Your task to perform on an android device: Open Google Chrome and open the bookmarks view Image 0: 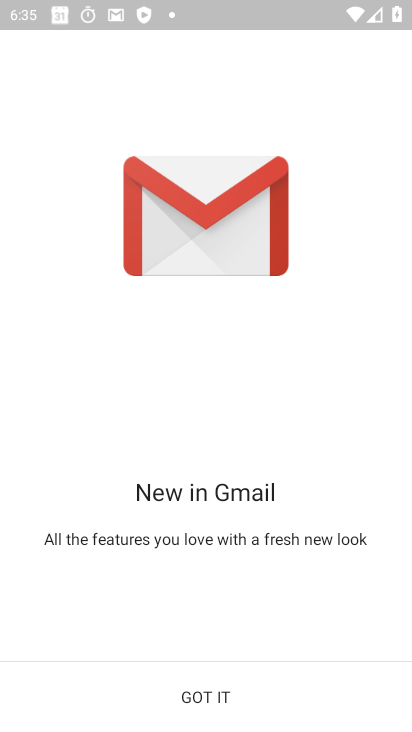
Step 0: press home button
Your task to perform on an android device: Open Google Chrome and open the bookmarks view Image 1: 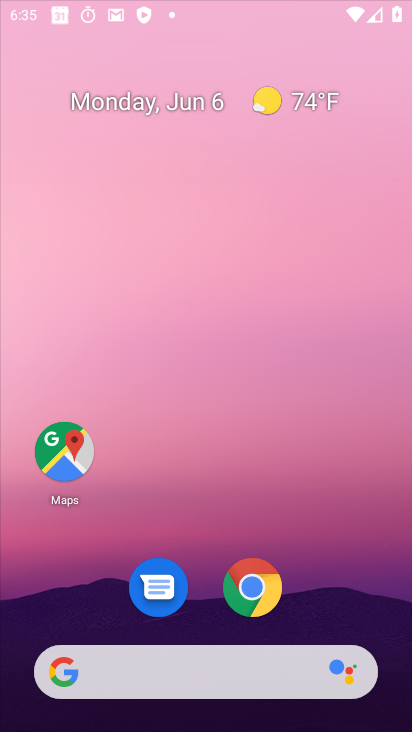
Step 1: drag from (392, 711) to (312, 47)
Your task to perform on an android device: Open Google Chrome and open the bookmarks view Image 2: 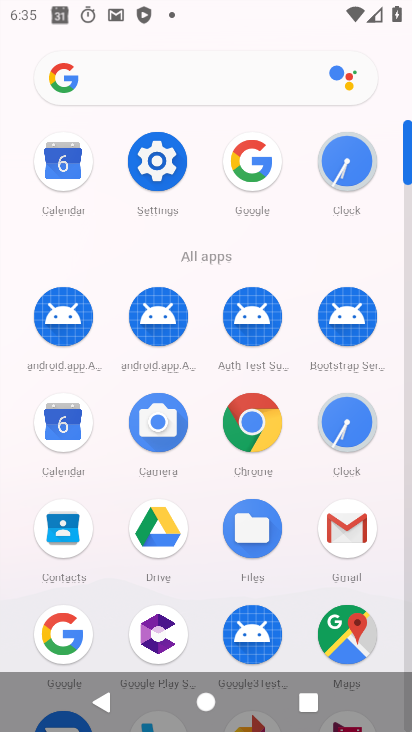
Step 2: click (263, 432)
Your task to perform on an android device: Open Google Chrome and open the bookmarks view Image 3: 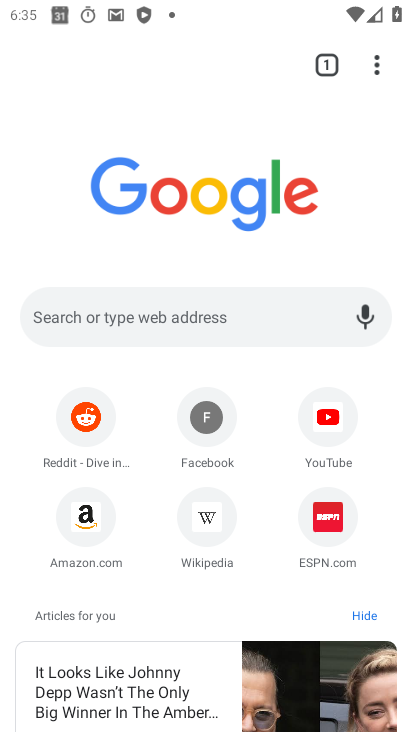
Step 3: click (379, 58)
Your task to perform on an android device: Open Google Chrome and open the bookmarks view Image 4: 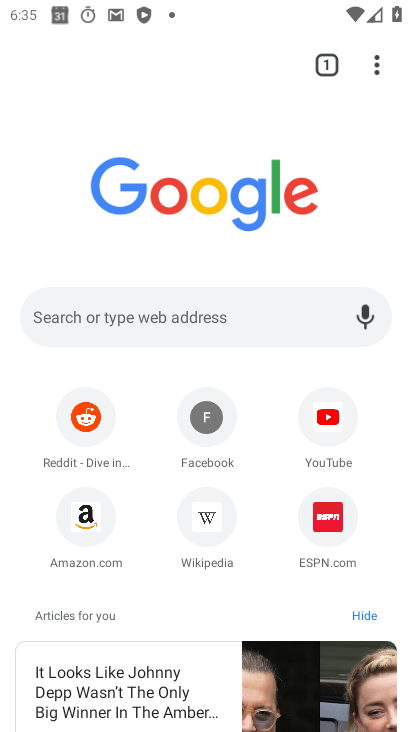
Step 4: click (377, 57)
Your task to perform on an android device: Open Google Chrome and open the bookmarks view Image 5: 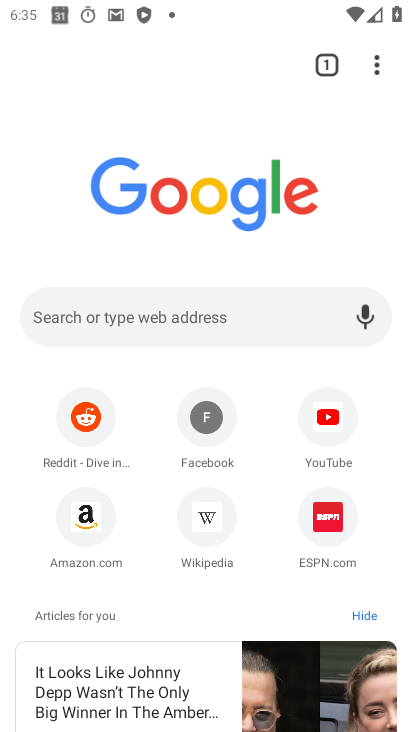
Step 5: click (377, 57)
Your task to perform on an android device: Open Google Chrome and open the bookmarks view Image 6: 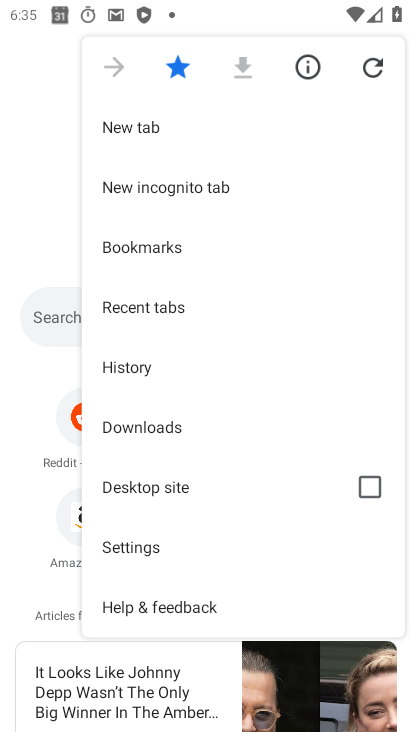
Step 6: click (175, 243)
Your task to perform on an android device: Open Google Chrome and open the bookmarks view Image 7: 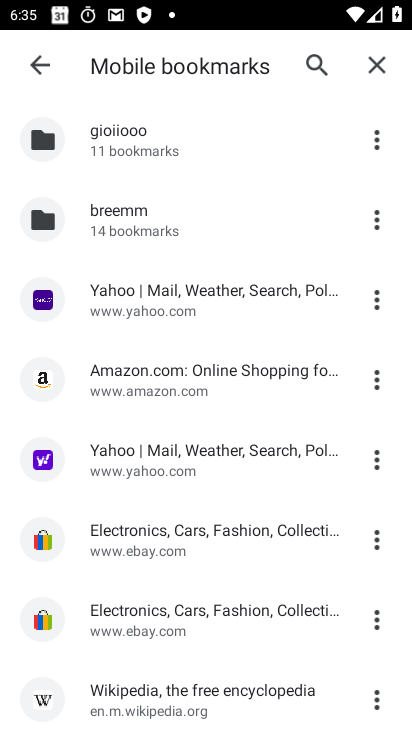
Step 7: task complete